Your task to perform on an android device: turn off location history Image 0: 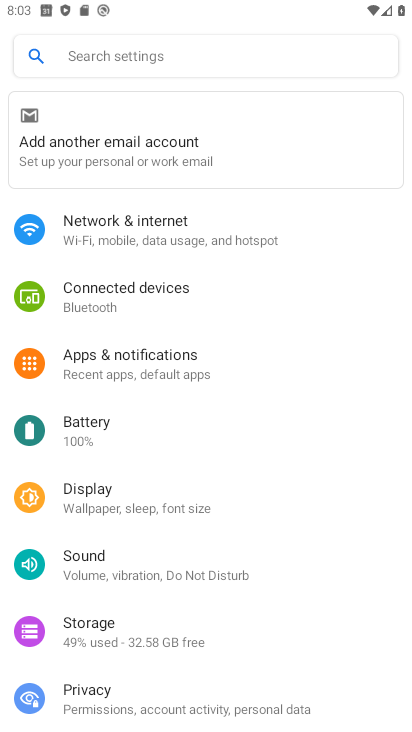
Step 0: drag from (133, 694) to (244, 112)
Your task to perform on an android device: turn off location history Image 1: 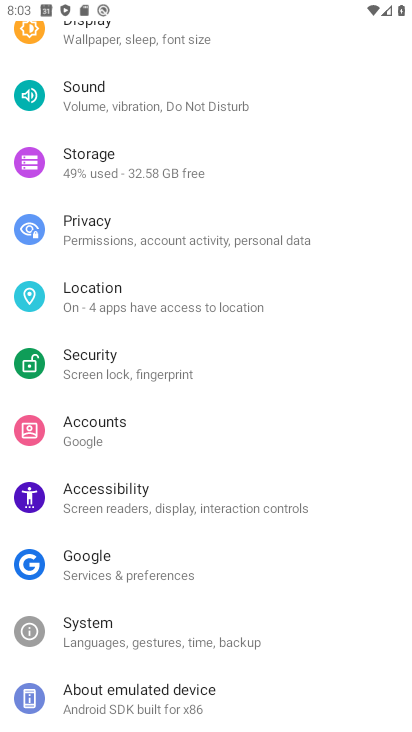
Step 1: click (197, 303)
Your task to perform on an android device: turn off location history Image 2: 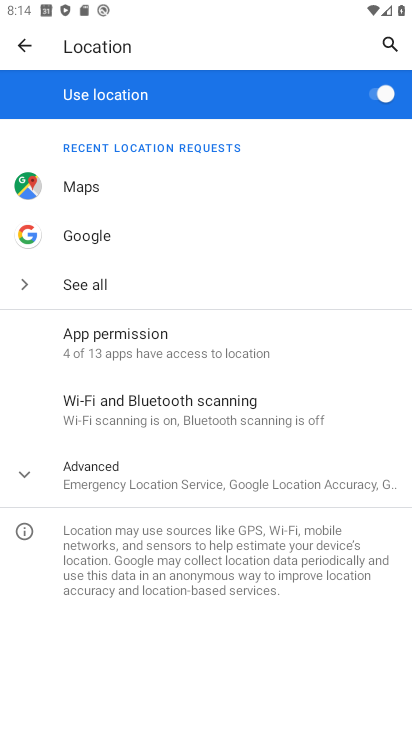
Step 2: task complete